Your task to perform on an android device: Toggle the flashlight Image 0: 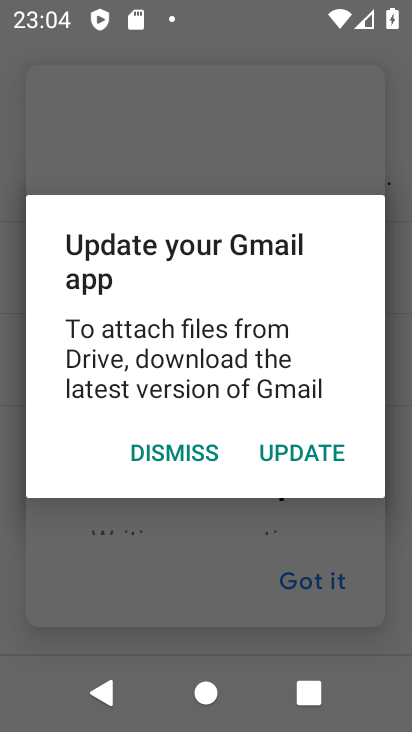
Step 0: press home button
Your task to perform on an android device: Toggle the flashlight Image 1: 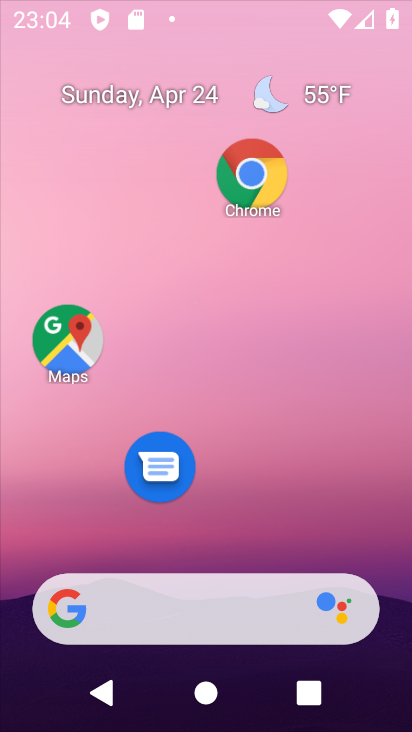
Step 1: press home button
Your task to perform on an android device: Toggle the flashlight Image 2: 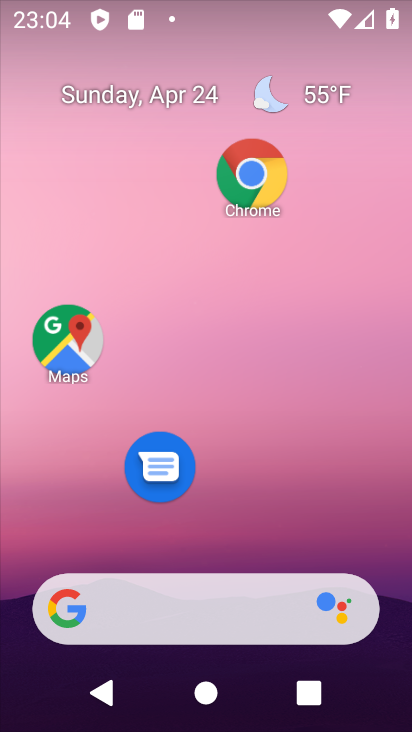
Step 2: drag from (250, 510) to (243, 32)
Your task to perform on an android device: Toggle the flashlight Image 3: 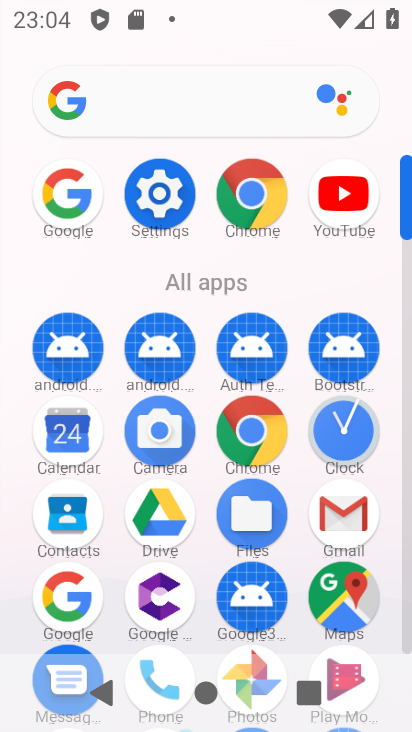
Step 3: click (162, 198)
Your task to perform on an android device: Toggle the flashlight Image 4: 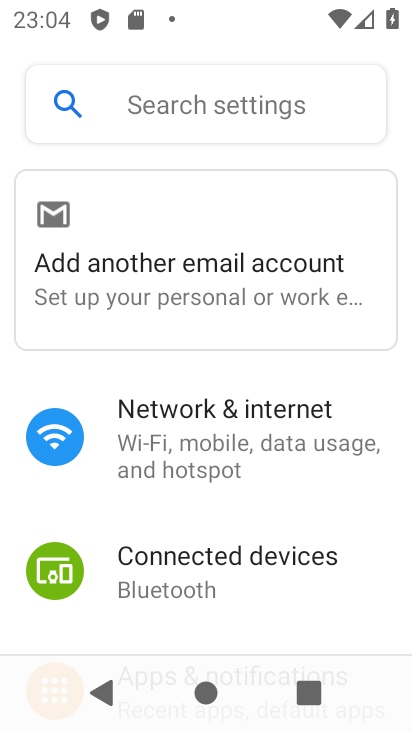
Step 4: drag from (285, 188) to (244, 14)
Your task to perform on an android device: Toggle the flashlight Image 5: 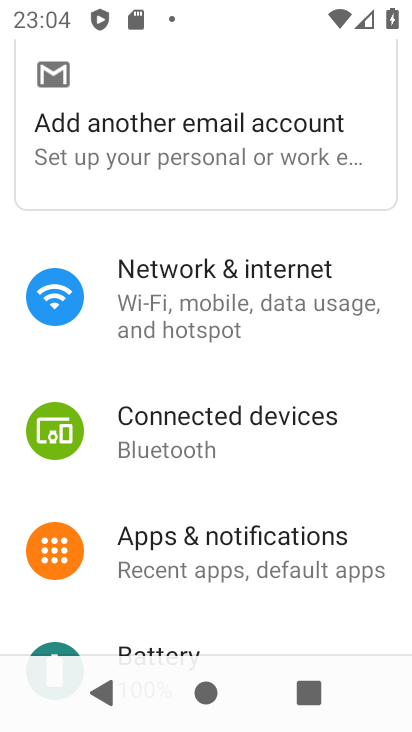
Step 5: drag from (224, 256) to (250, 506)
Your task to perform on an android device: Toggle the flashlight Image 6: 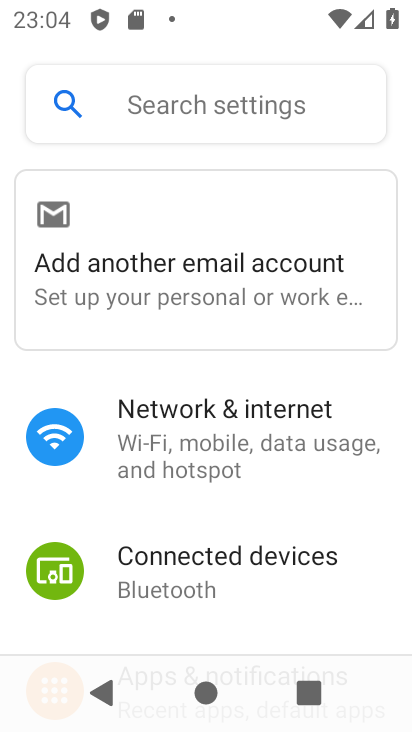
Step 6: click (165, 108)
Your task to perform on an android device: Toggle the flashlight Image 7: 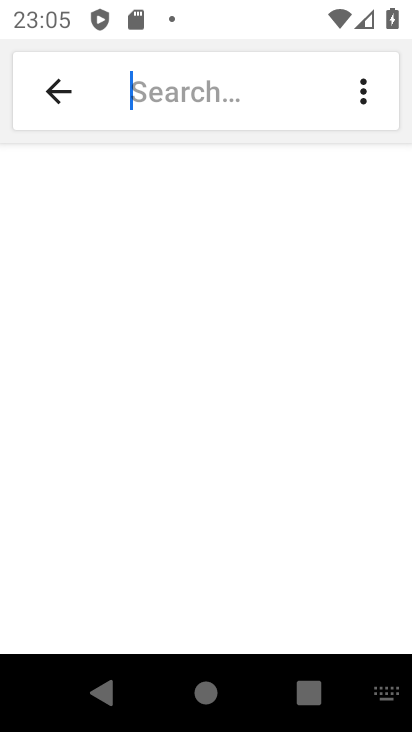
Step 7: type "flashlight"
Your task to perform on an android device: Toggle the flashlight Image 8: 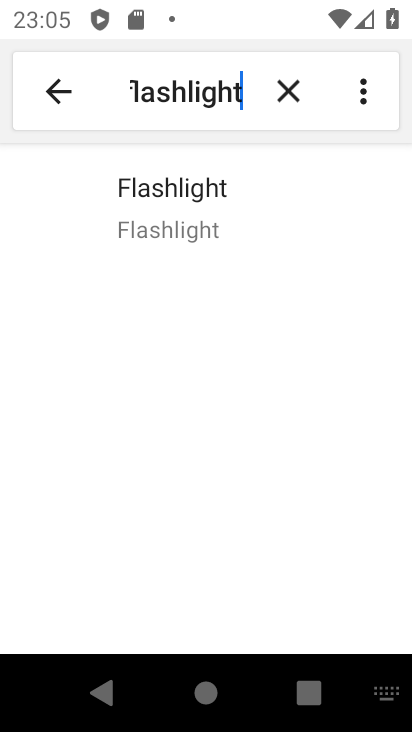
Step 8: task complete